Your task to perform on an android device: Open CNN.com Image 0: 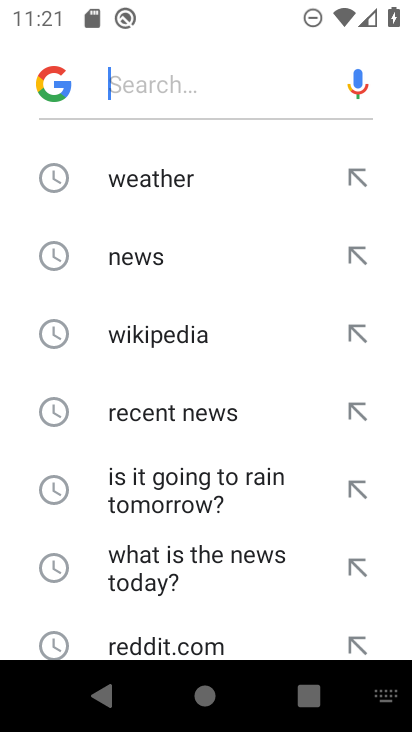
Step 0: type "cnn.com"
Your task to perform on an android device: Open CNN.com Image 1: 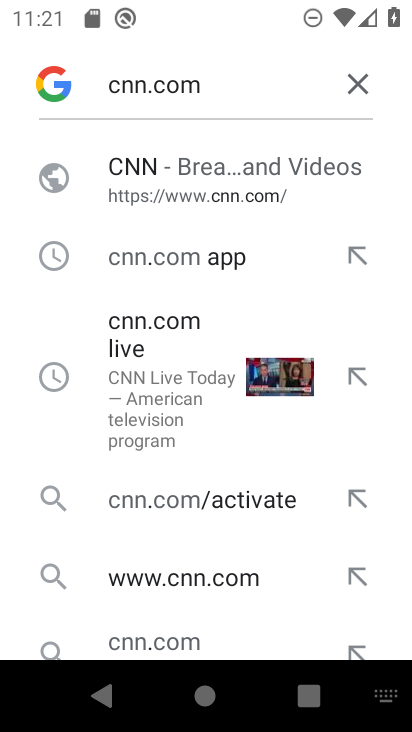
Step 1: click (197, 171)
Your task to perform on an android device: Open CNN.com Image 2: 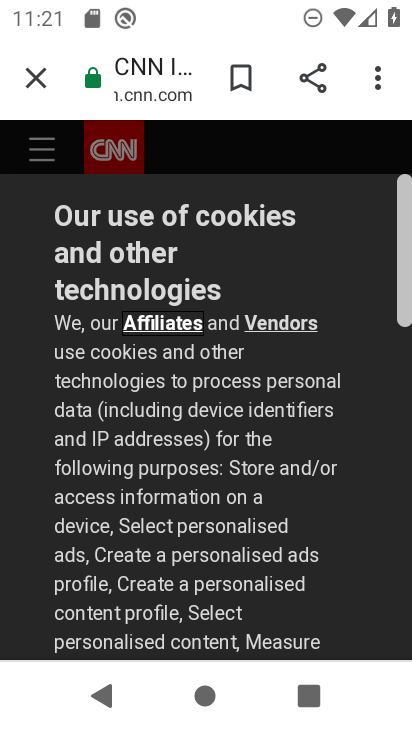
Step 2: task complete